Your task to perform on an android device: Go to Wikipedia Image 0: 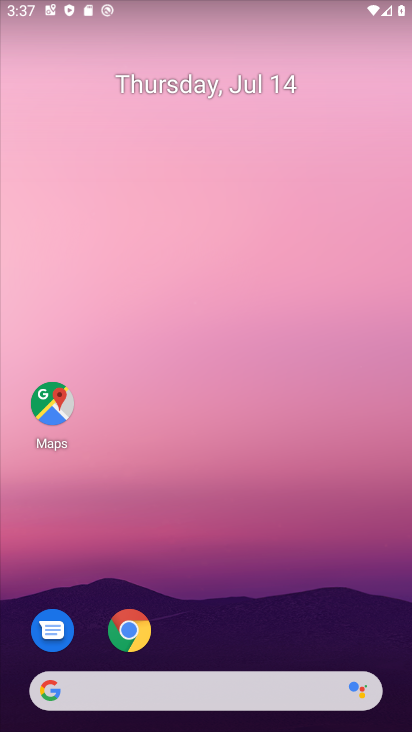
Step 0: click (135, 630)
Your task to perform on an android device: Go to Wikipedia Image 1: 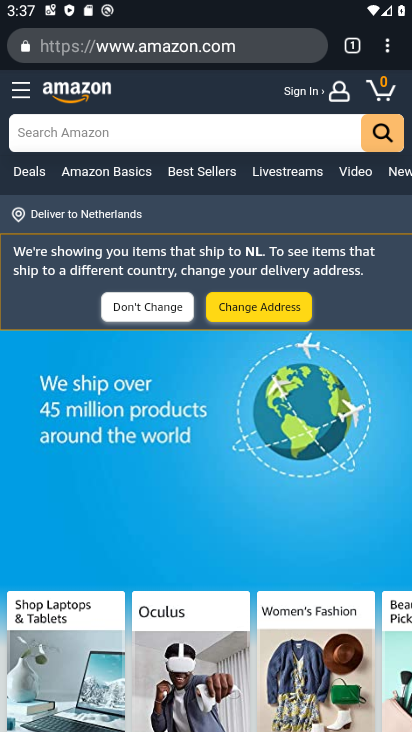
Step 1: click (356, 47)
Your task to perform on an android device: Go to Wikipedia Image 2: 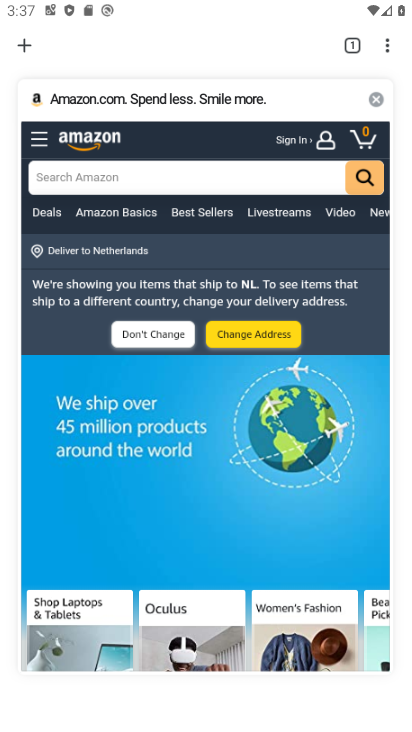
Step 2: click (377, 97)
Your task to perform on an android device: Go to Wikipedia Image 3: 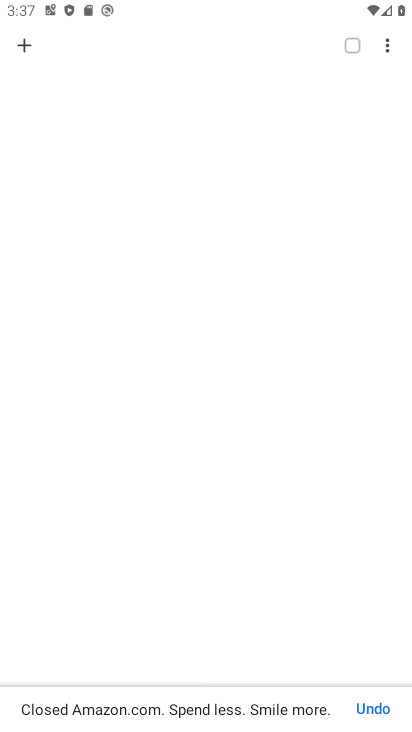
Step 3: click (30, 51)
Your task to perform on an android device: Go to Wikipedia Image 4: 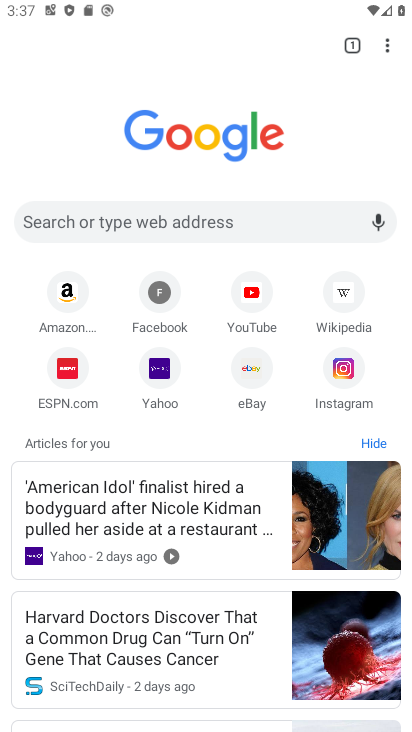
Step 4: click (339, 299)
Your task to perform on an android device: Go to Wikipedia Image 5: 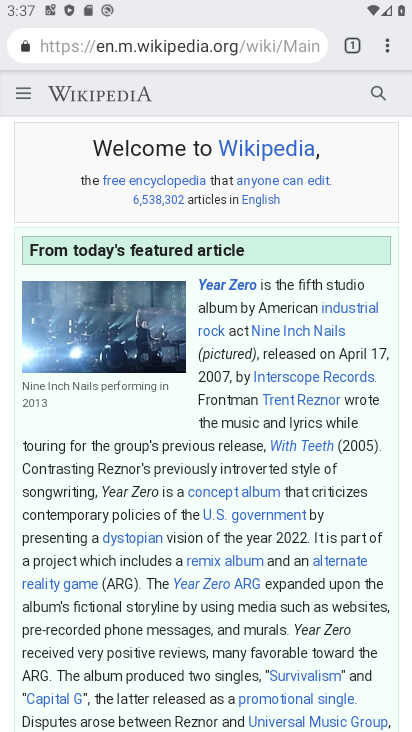
Step 5: task complete